Your task to perform on an android device: open app "Truecaller" (install if not already installed) and go to login screen Image 0: 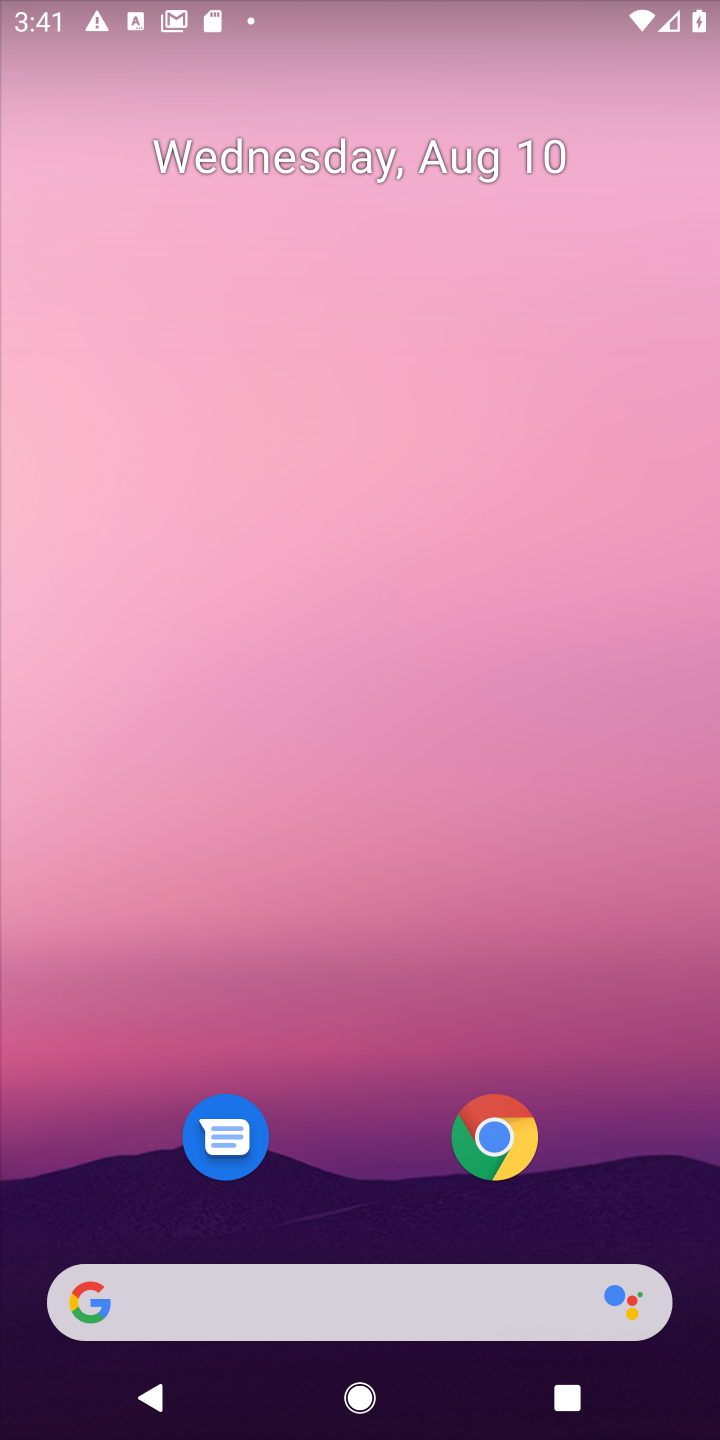
Step 0: drag from (396, 1207) to (492, 405)
Your task to perform on an android device: open app "Truecaller" (install if not already installed) and go to login screen Image 1: 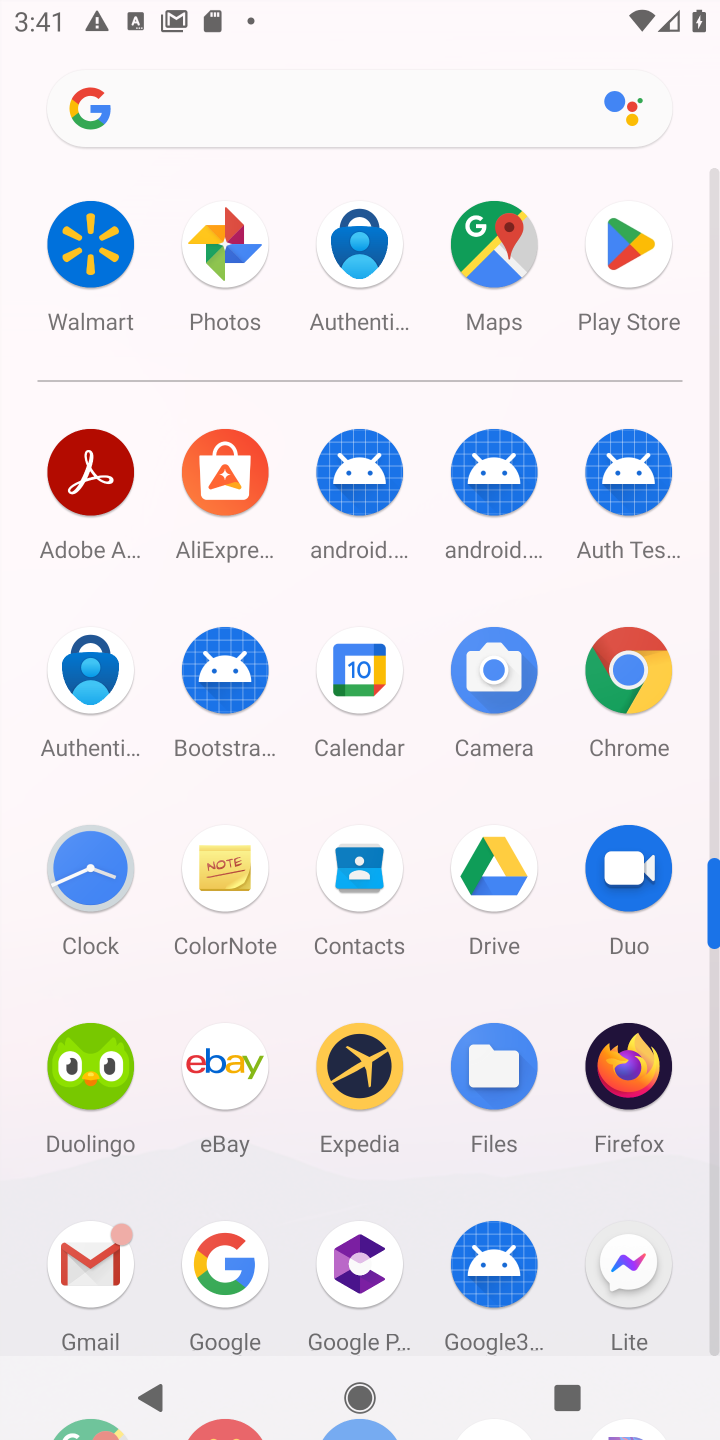
Step 1: click (639, 247)
Your task to perform on an android device: open app "Truecaller" (install if not already installed) and go to login screen Image 2: 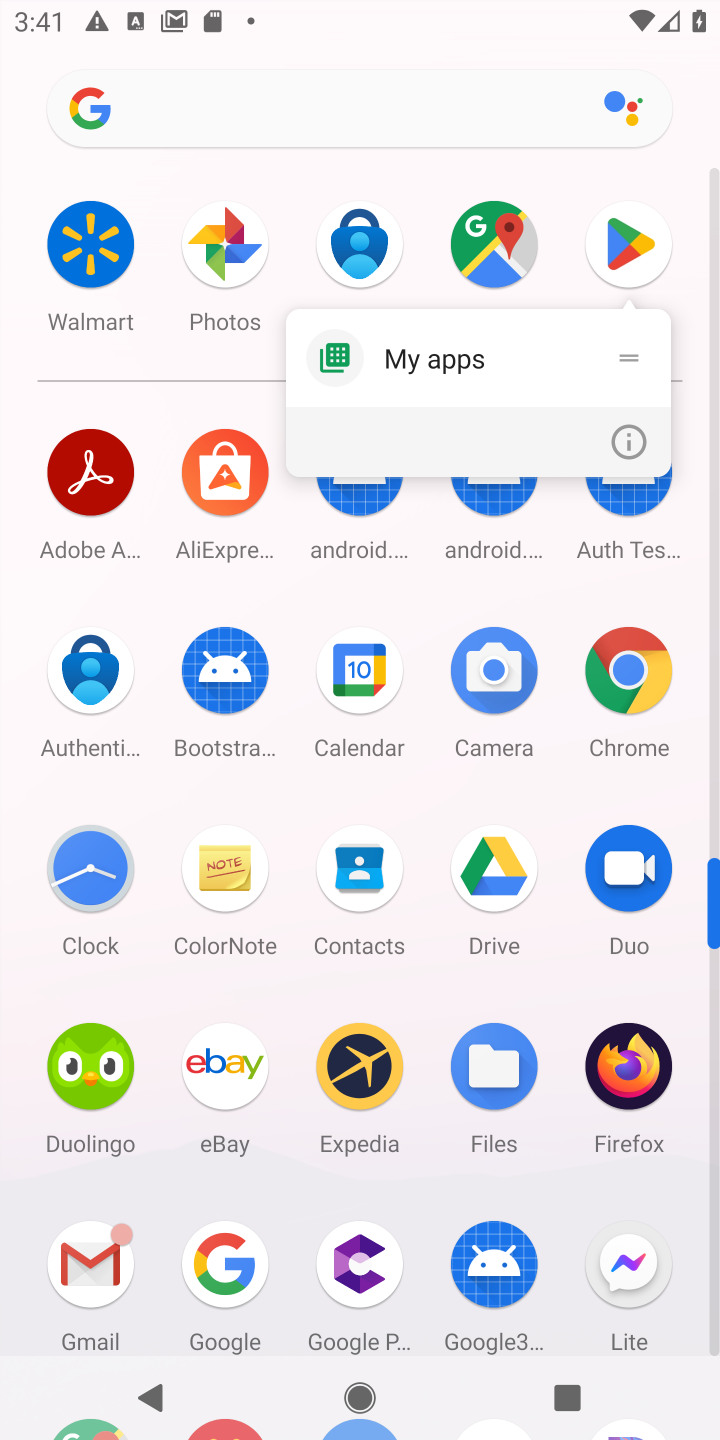
Step 2: click (624, 229)
Your task to perform on an android device: open app "Truecaller" (install if not already installed) and go to login screen Image 3: 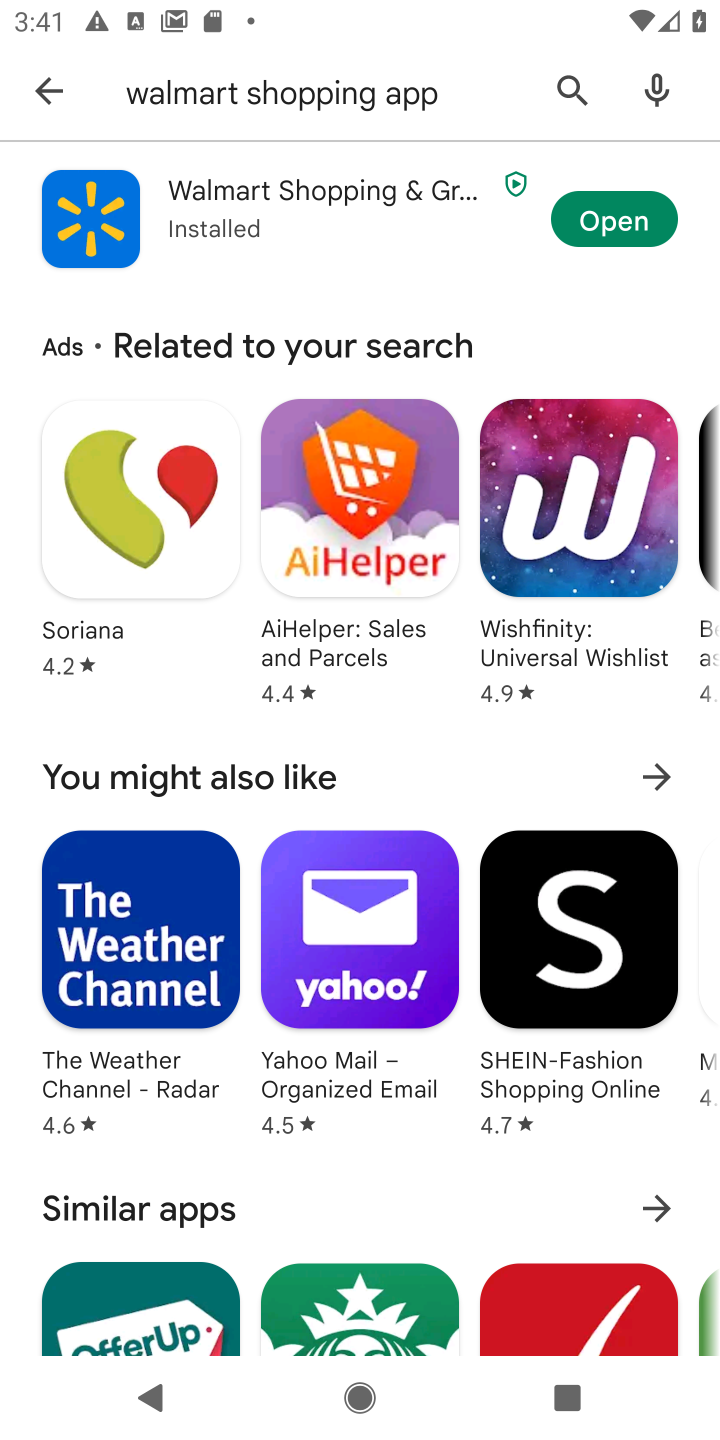
Step 3: click (329, 78)
Your task to perform on an android device: open app "Truecaller" (install if not already installed) and go to login screen Image 4: 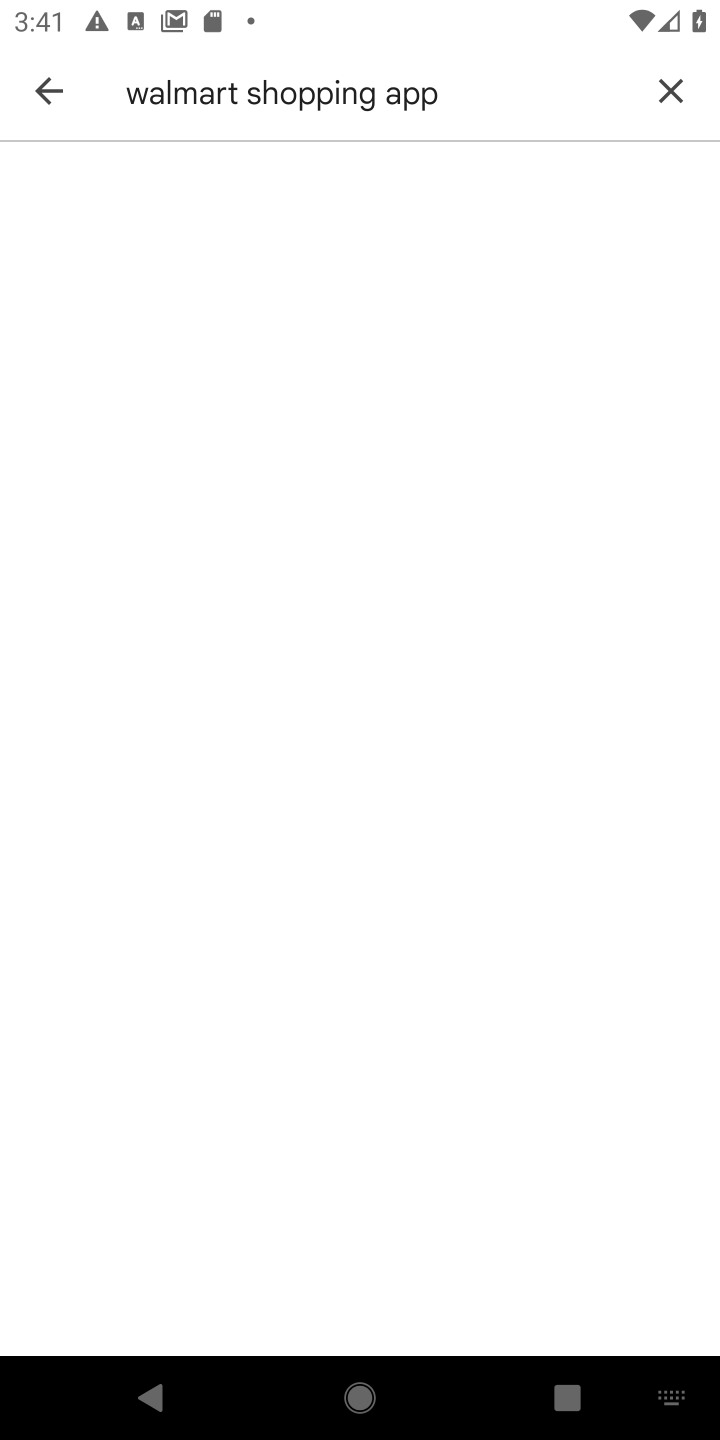
Step 4: click (667, 79)
Your task to perform on an android device: open app "Truecaller" (install if not already installed) and go to login screen Image 5: 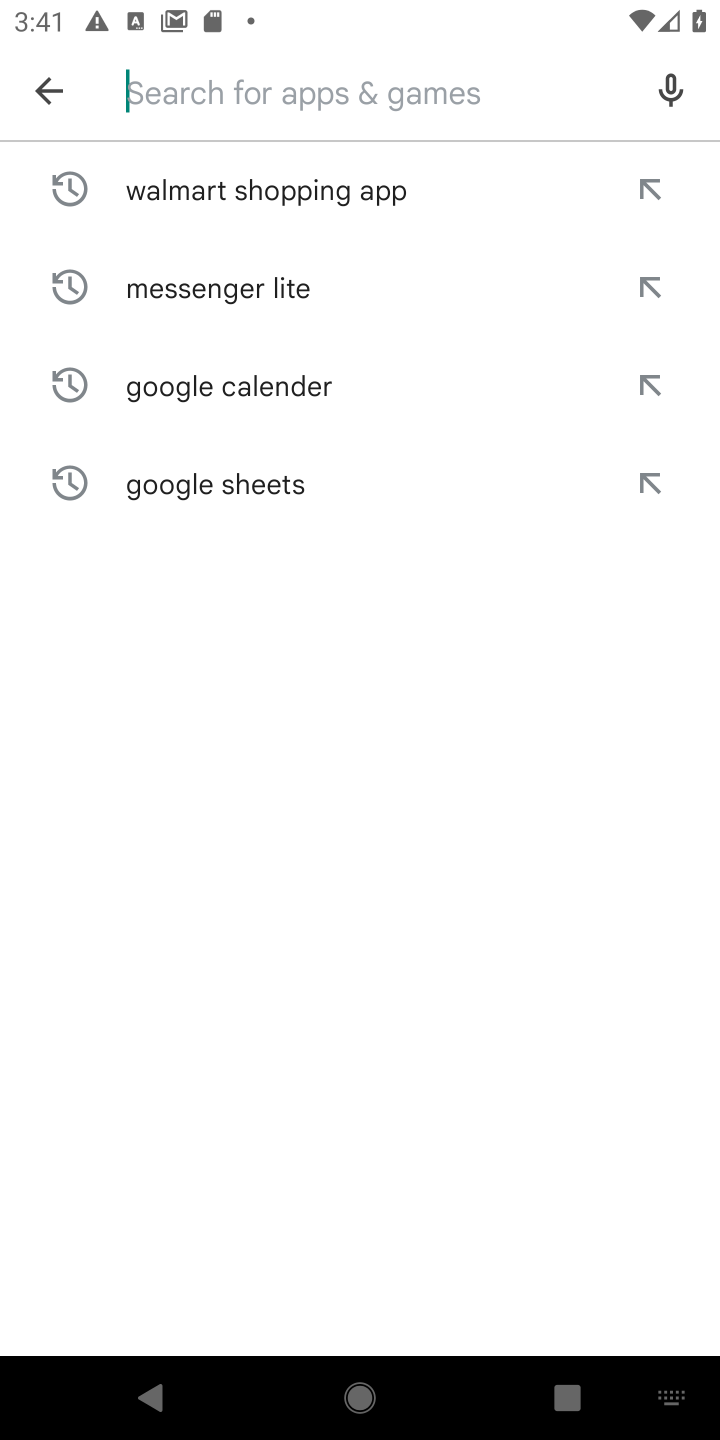
Step 5: type "truecaller"
Your task to perform on an android device: open app "Truecaller" (install if not already installed) and go to login screen Image 6: 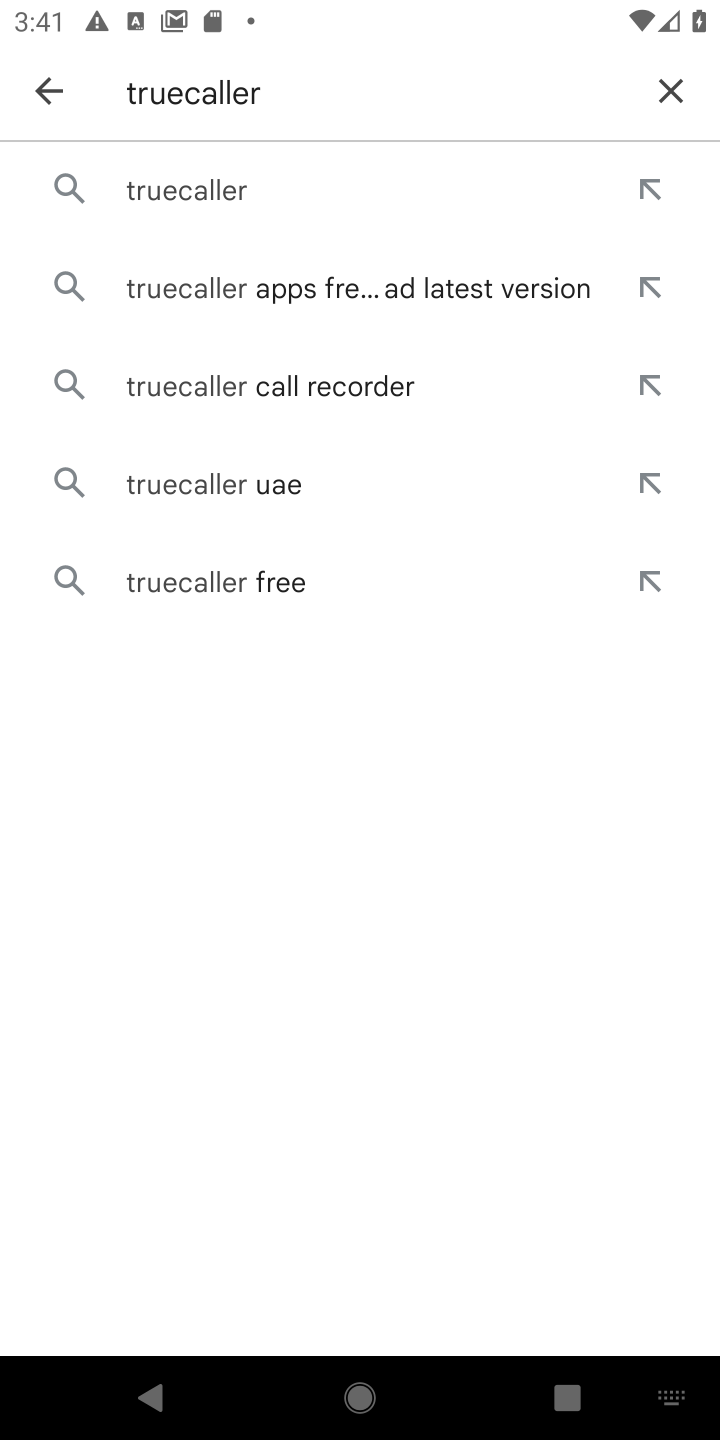
Step 6: click (231, 208)
Your task to perform on an android device: open app "Truecaller" (install if not already installed) and go to login screen Image 7: 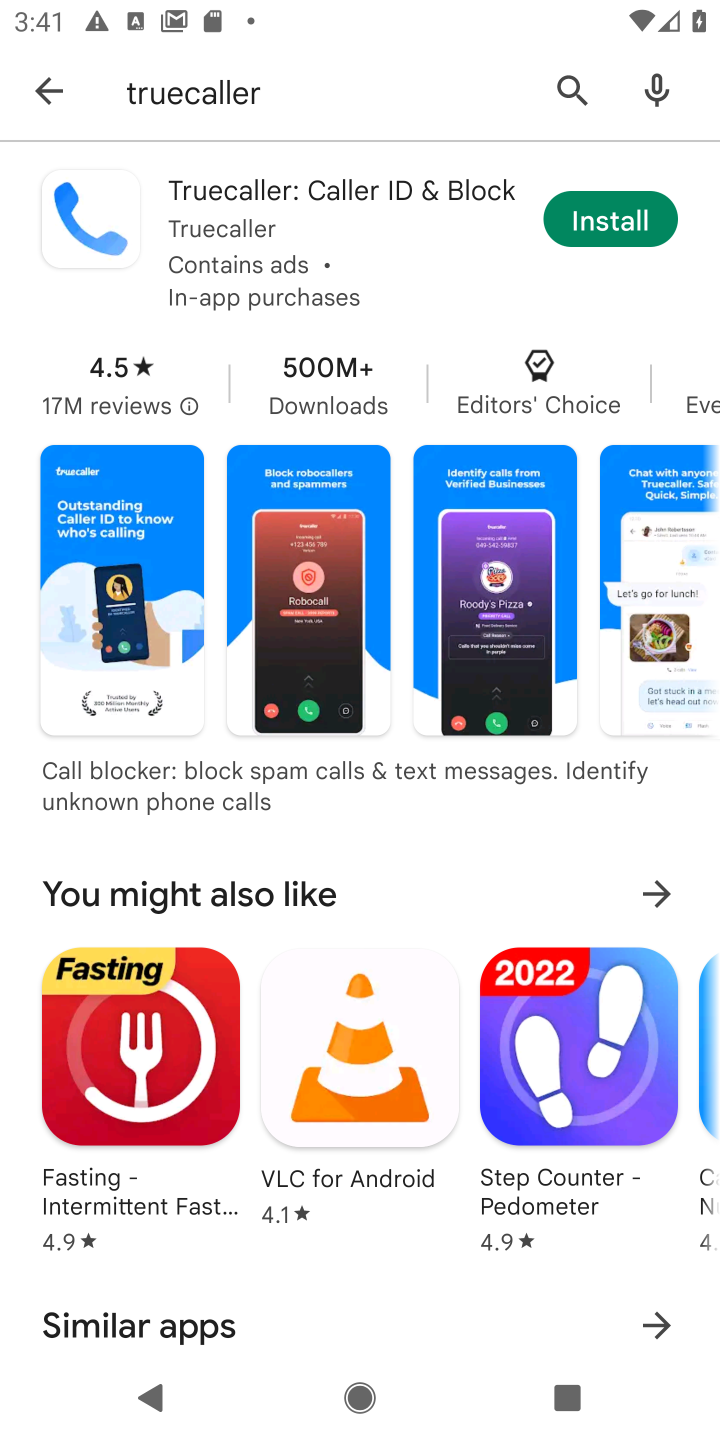
Step 7: click (640, 217)
Your task to perform on an android device: open app "Truecaller" (install if not already installed) and go to login screen Image 8: 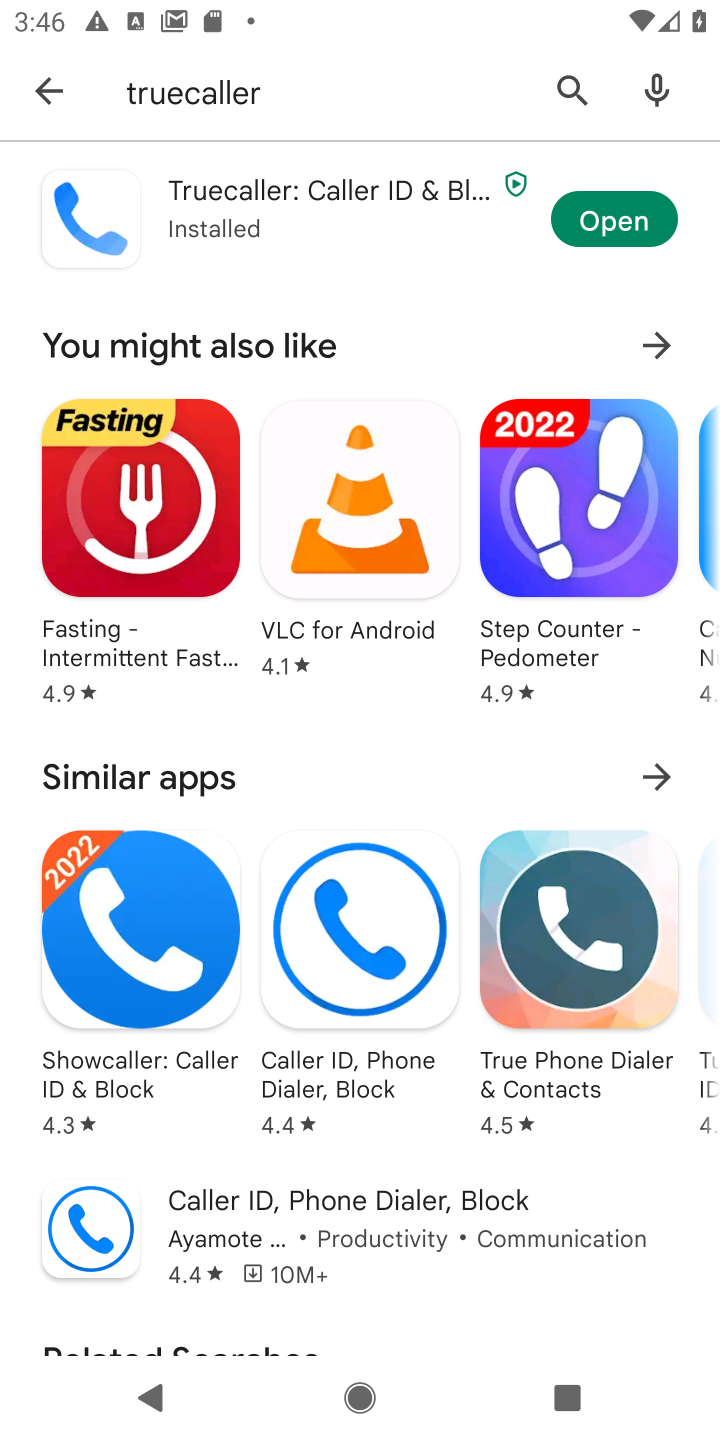
Step 8: click (623, 202)
Your task to perform on an android device: open app "Truecaller" (install if not already installed) and go to login screen Image 9: 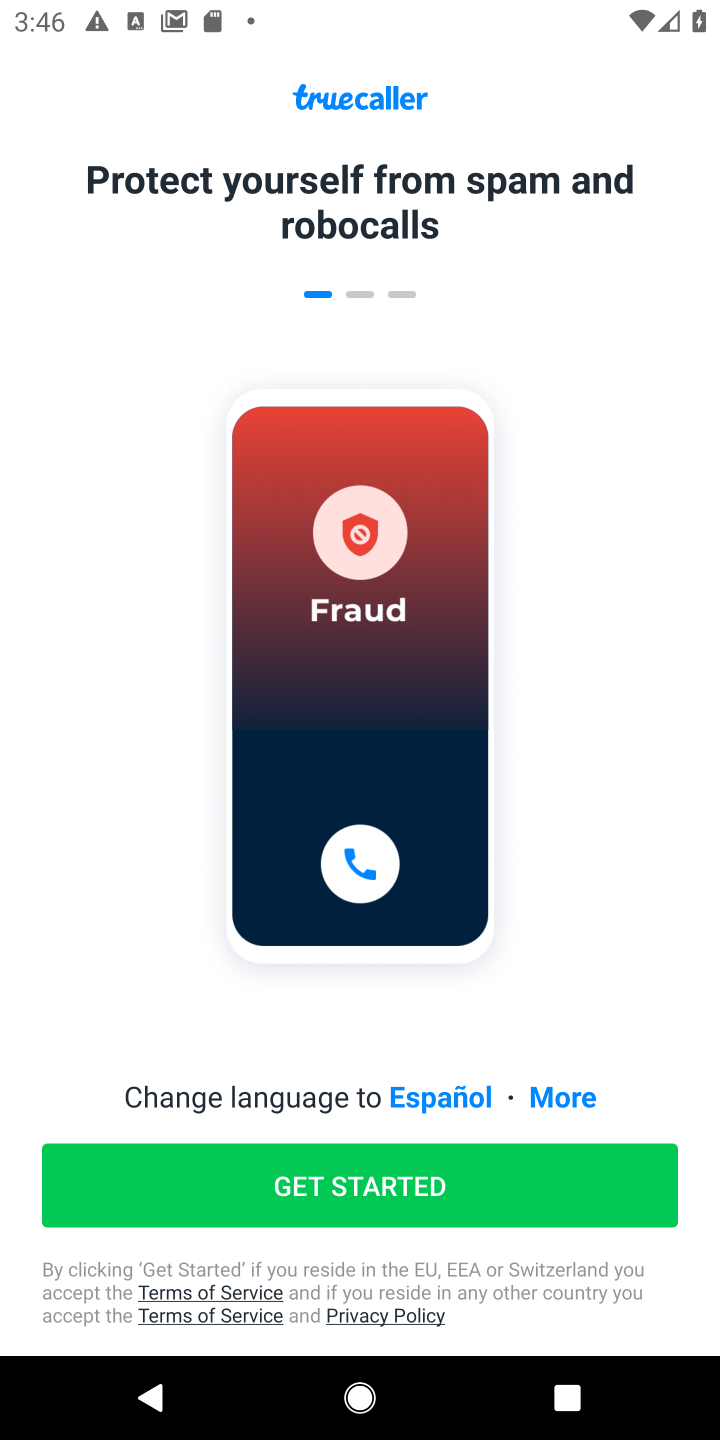
Step 9: click (424, 1191)
Your task to perform on an android device: open app "Truecaller" (install if not already installed) and go to login screen Image 10: 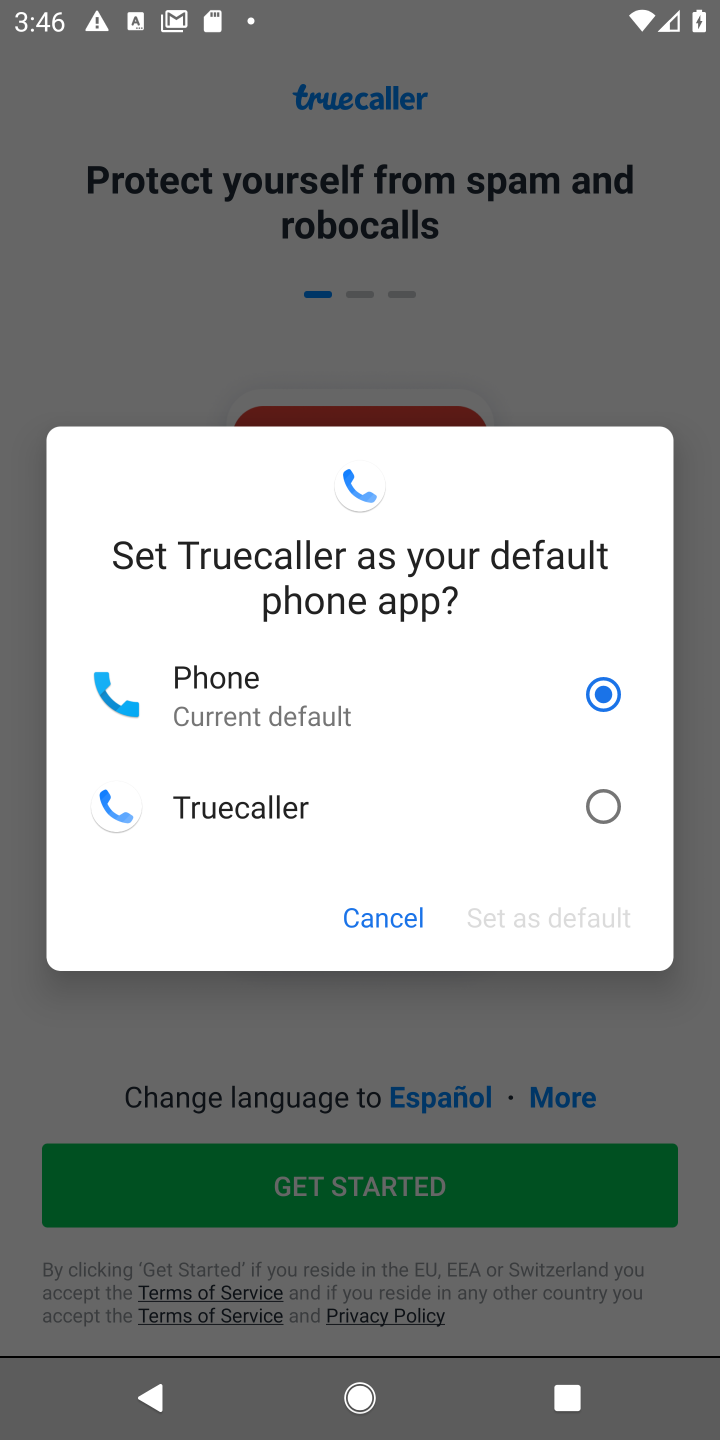
Step 10: click (495, 815)
Your task to perform on an android device: open app "Truecaller" (install if not already installed) and go to login screen Image 11: 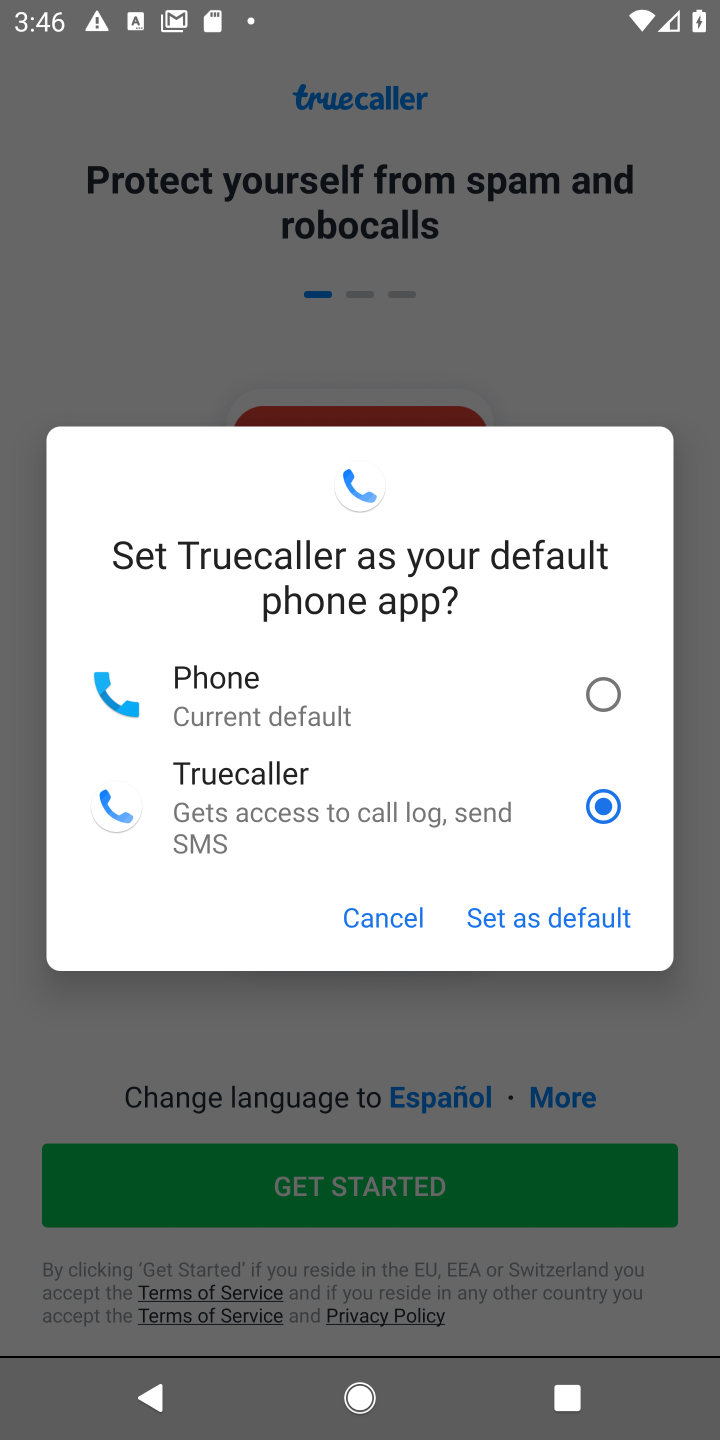
Step 11: click (576, 909)
Your task to perform on an android device: open app "Truecaller" (install if not already installed) and go to login screen Image 12: 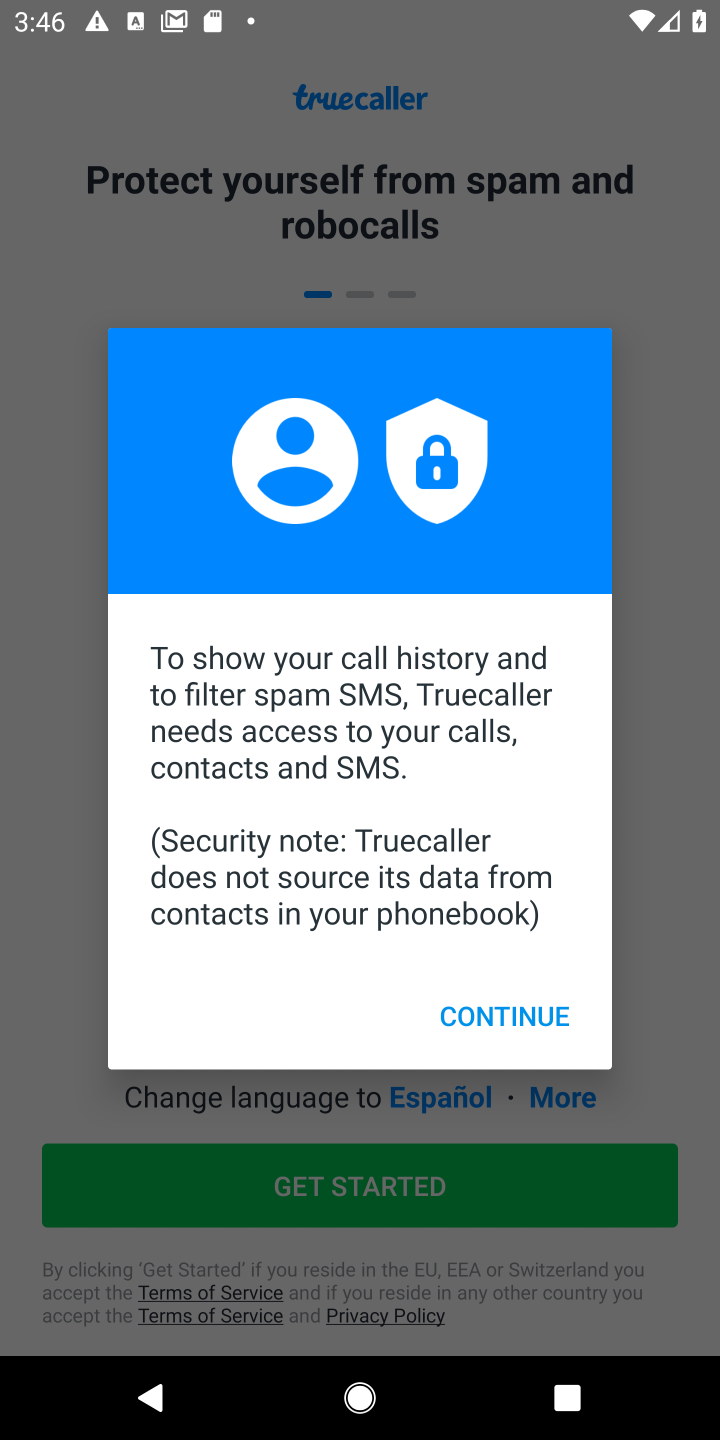
Step 12: click (523, 1021)
Your task to perform on an android device: open app "Truecaller" (install if not already installed) and go to login screen Image 13: 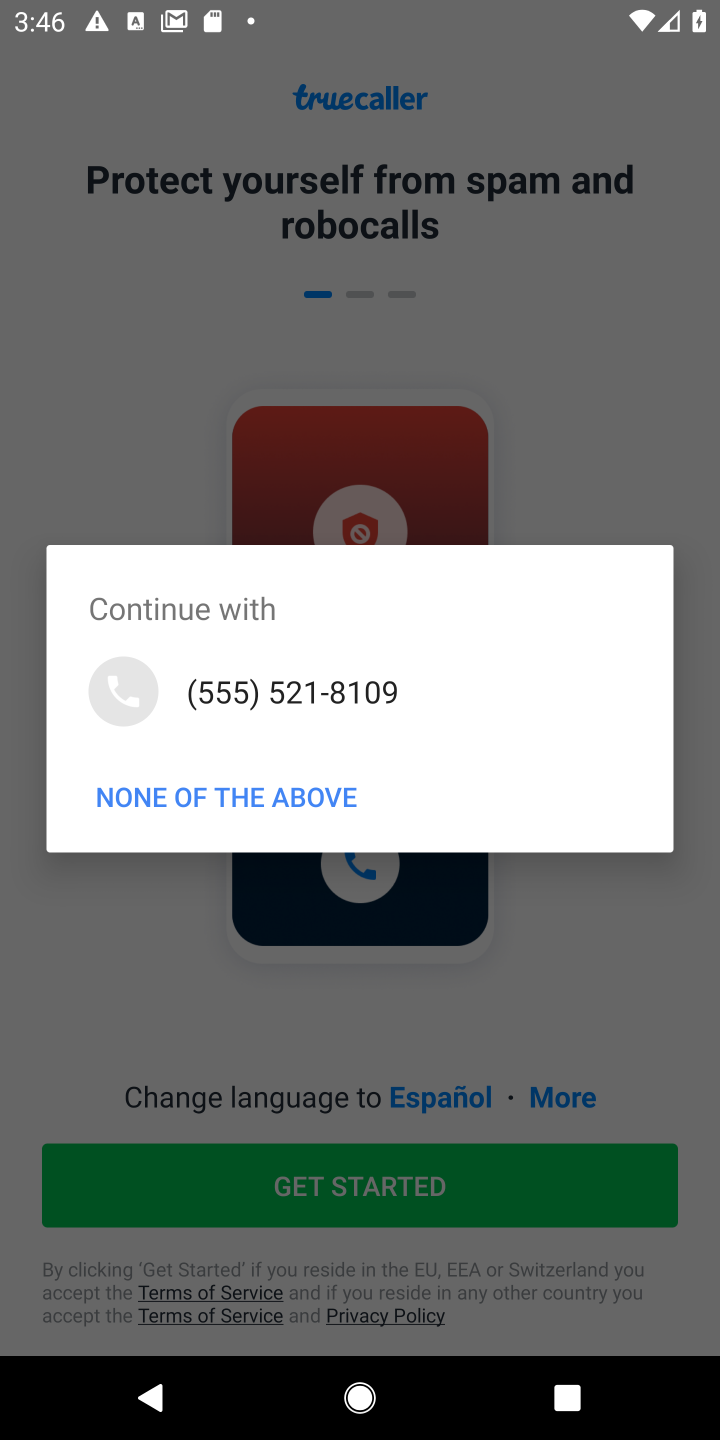
Step 13: click (361, 703)
Your task to perform on an android device: open app "Truecaller" (install if not already installed) and go to login screen Image 14: 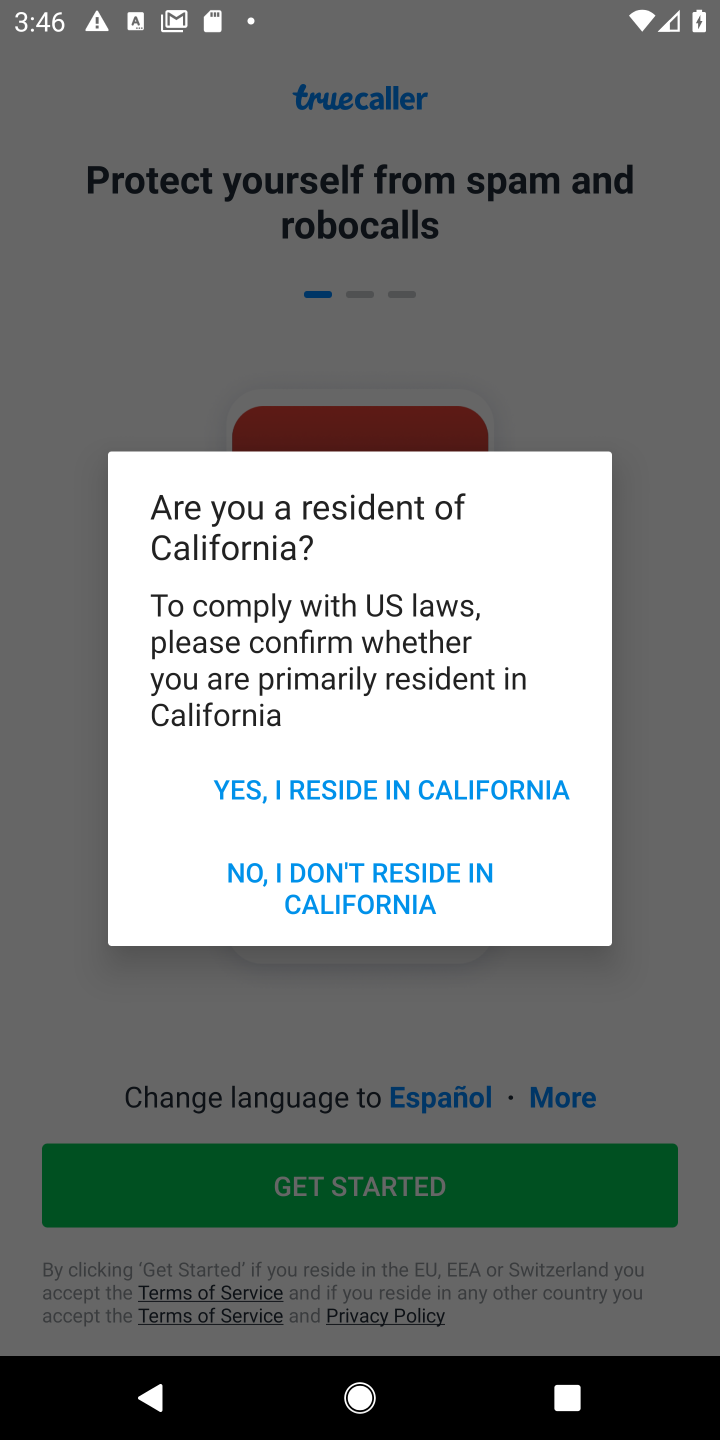
Step 14: click (365, 803)
Your task to perform on an android device: open app "Truecaller" (install if not already installed) and go to login screen Image 15: 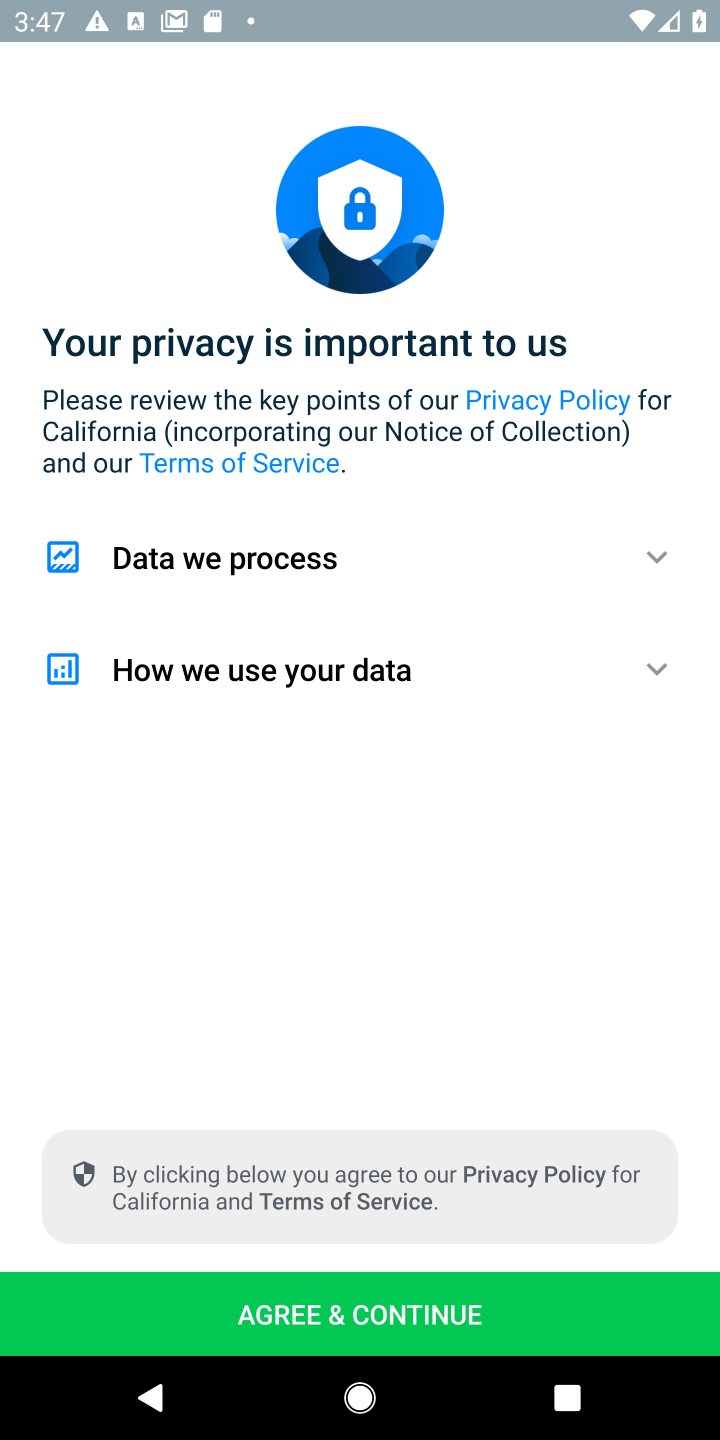
Step 15: click (446, 1326)
Your task to perform on an android device: open app "Truecaller" (install if not already installed) and go to login screen Image 16: 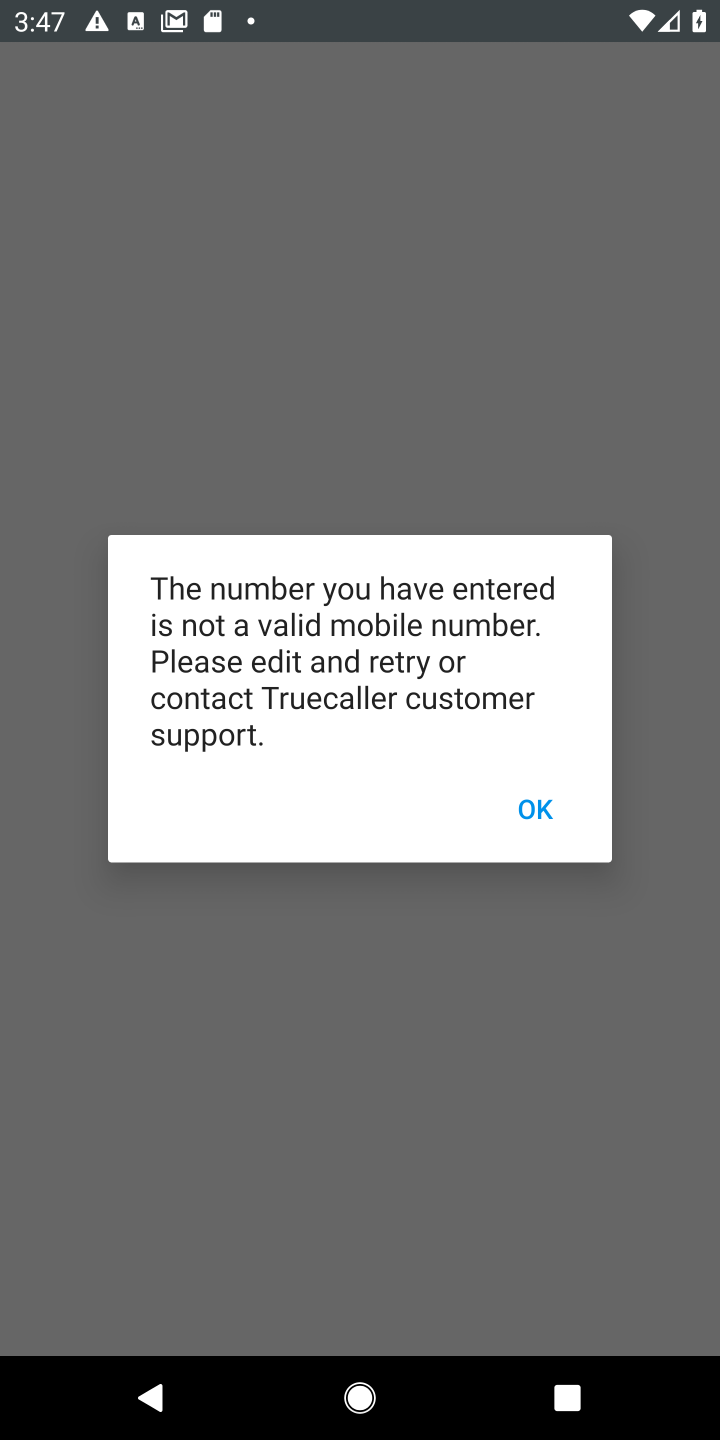
Step 16: click (545, 802)
Your task to perform on an android device: open app "Truecaller" (install if not already installed) and go to login screen Image 17: 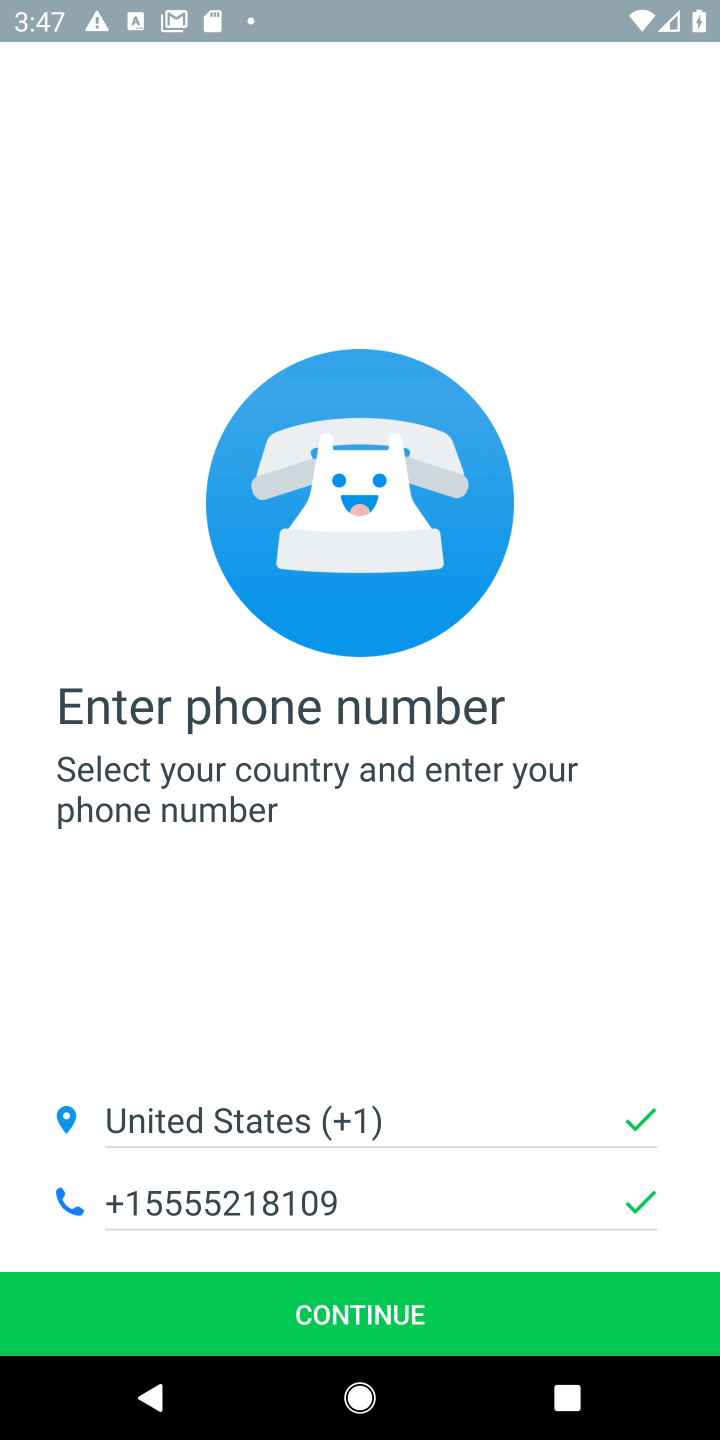
Step 17: task complete